Your task to perform on an android device: change the clock style Image 0: 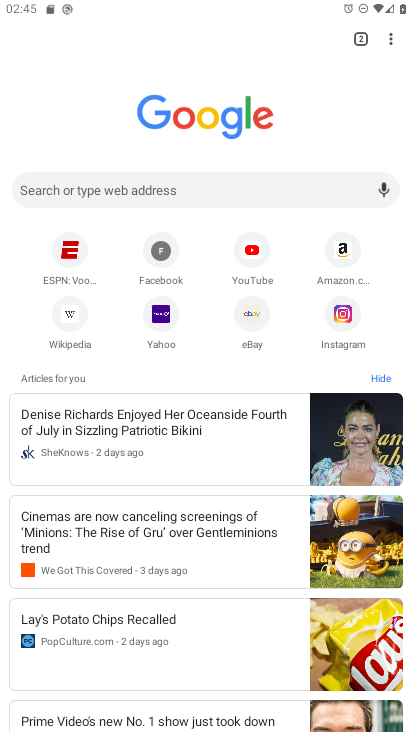
Step 0: press home button
Your task to perform on an android device: change the clock style Image 1: 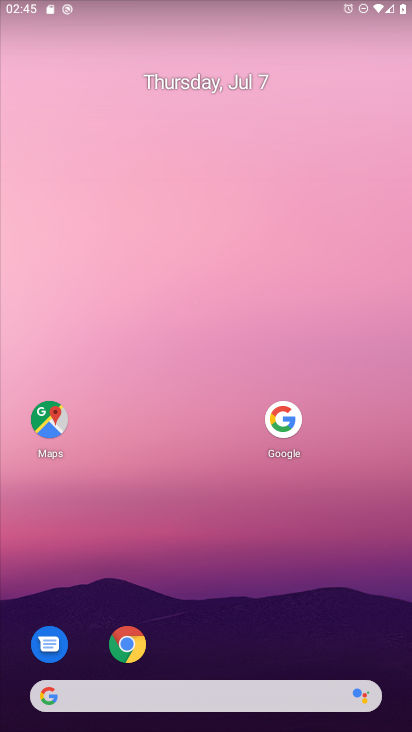
Step 1: drag from (166, 698) to (342, 37)
Your task to perform on an android device: change the clock style Image 2: 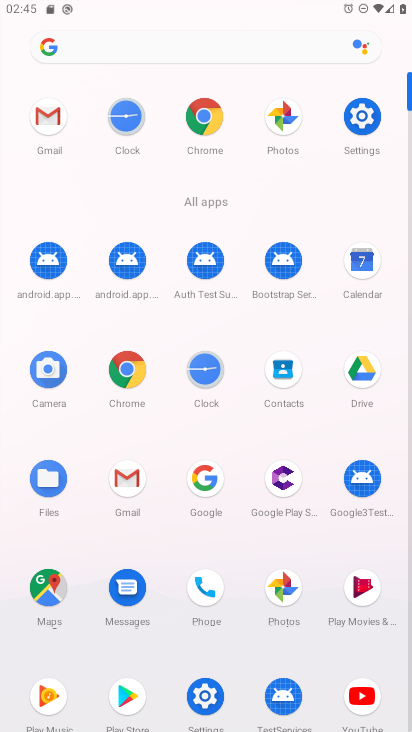
Step 2: click (123, 113)
Your task to perform on an android device: change the clock style Image 3: 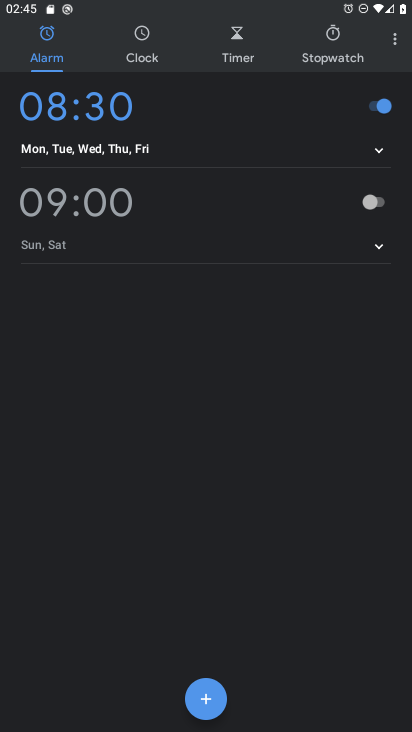
Step 3: click (394, 45)
Your task to perform on an android device: change the clock style Image 4: 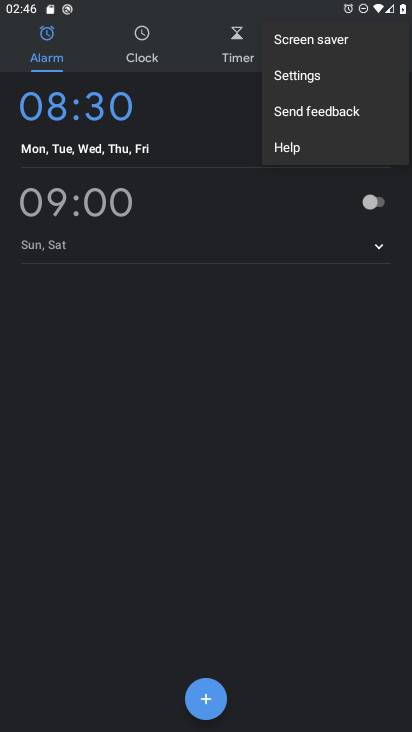
Step 4: click (311, 77)
Your task to perform on an android device: change the clock style Image 5: 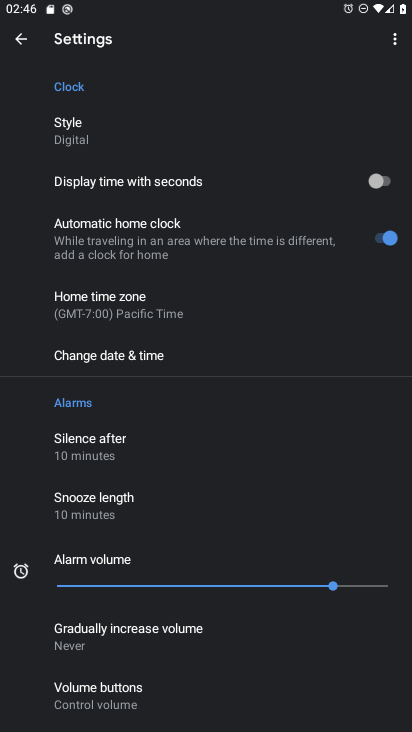
Step 5: click (84, 130)
Your task to perform on an android device: change the clock style Image 6: 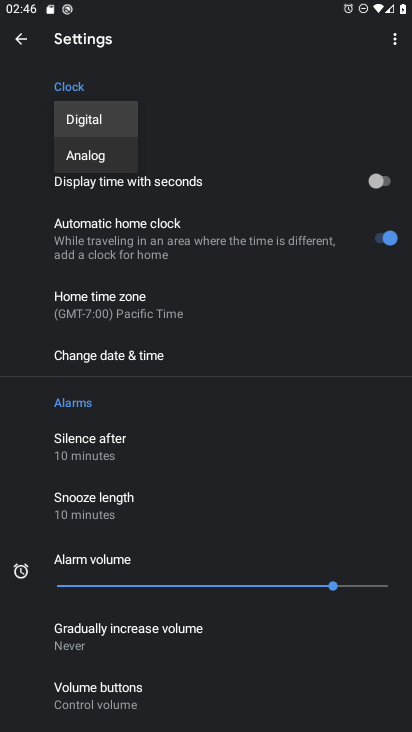
Step 6: click (106, 158)
Your task to perform on an android device: change the clock style Image 7: 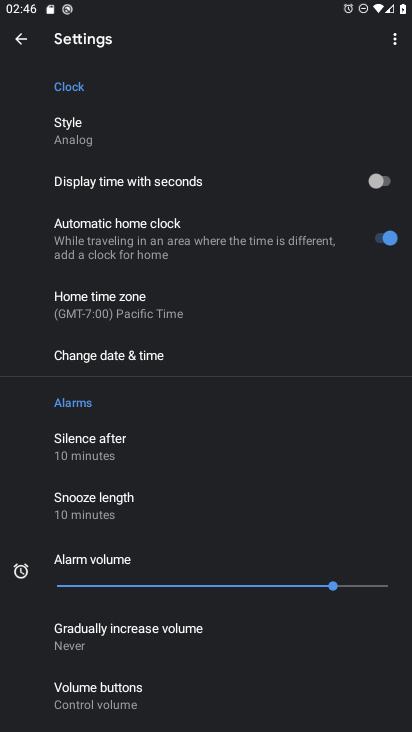
Step 7: task complete